Your task to perform on an android device: stop showing notifications on the lock screen Image 0: 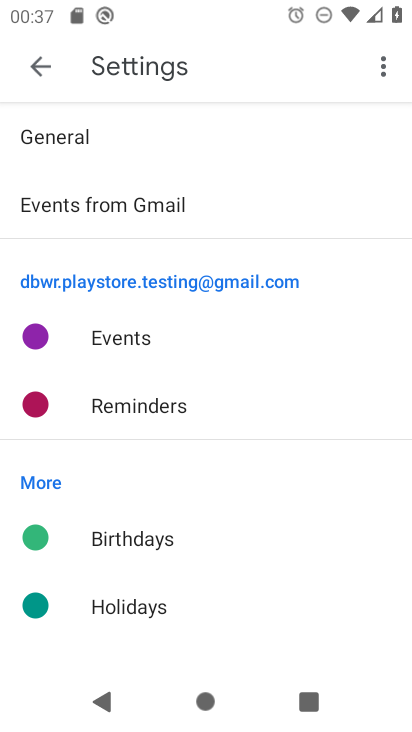
Step 0: press home button
Your task to perform on an android device: stop showing notifications on the lock screen Image 1: 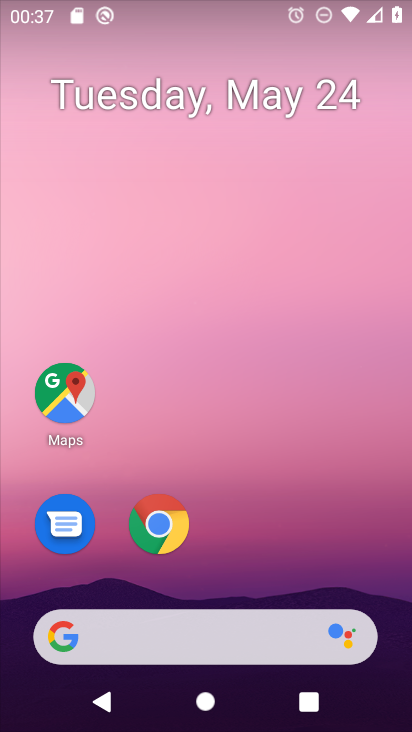
Step 1: drag from (248, 551) to (255, 143)
Your task to perform on an android device: stop showing notifications on the lock screen Image 2: 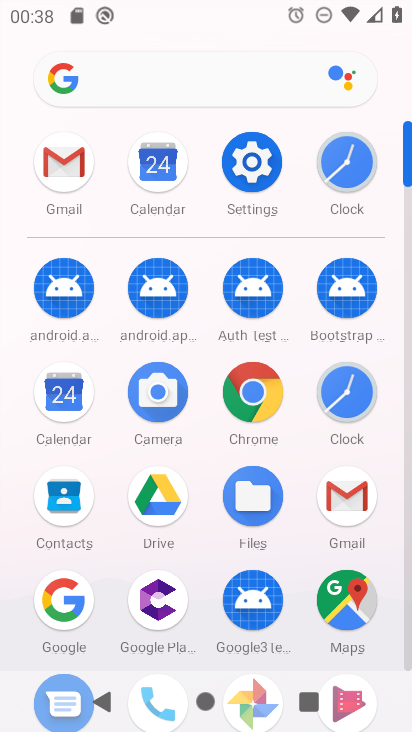
Step 2: click (259, 180)
Your task to perform on an android device: stop showing notifications on the lock screen Image 3: 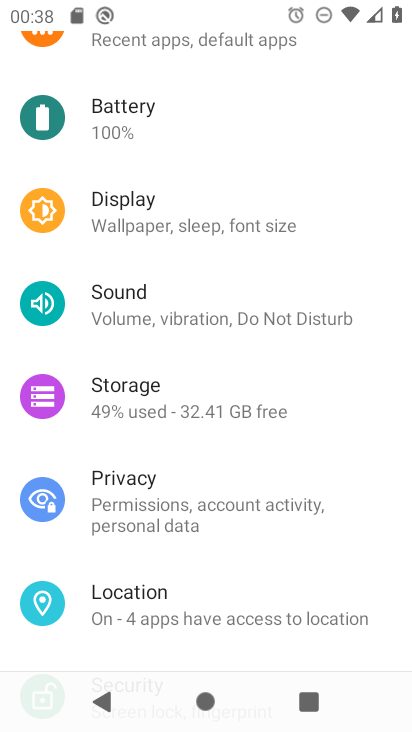
Step 3: drag from (255, 186) to (248, 490)
Your task to perform on an android device: stop showing notifications on the lock screen Image 4: 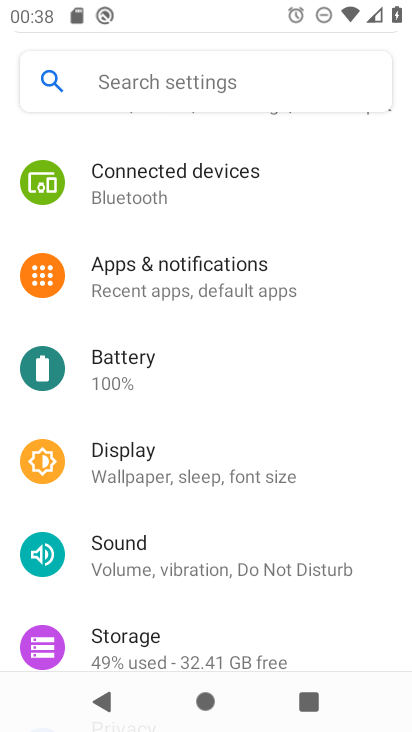
Step 4: drag from (220, 228) to (221, 476)
Your task to perform on an android device: stop showing notifications on the lock screen Image 5: 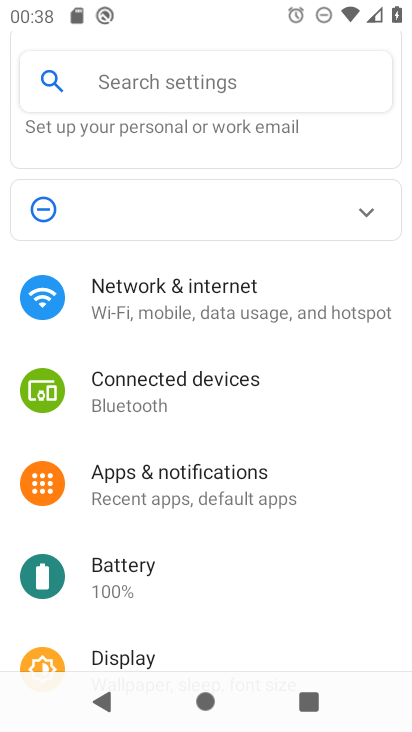
Step 5: drag from (213, 562) to (249, 334)
Your task to perform on an android device: stop showing notifications on the lock screen Image 6: 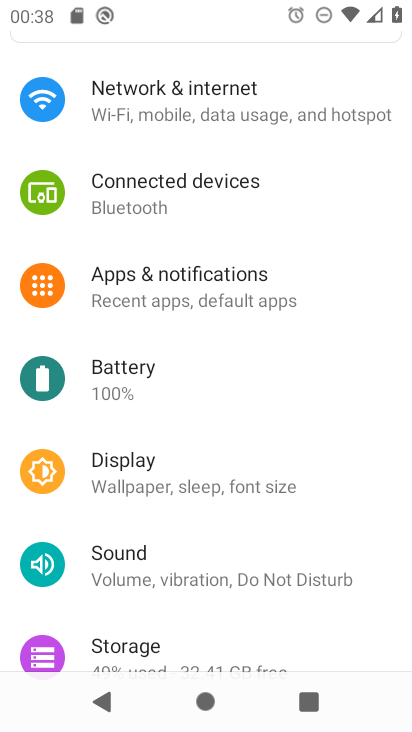
Step 6: drag from (193, 517) to (209, 448)
Your task to perform on an android device: stop showing notifications on the lock screen Image 7: 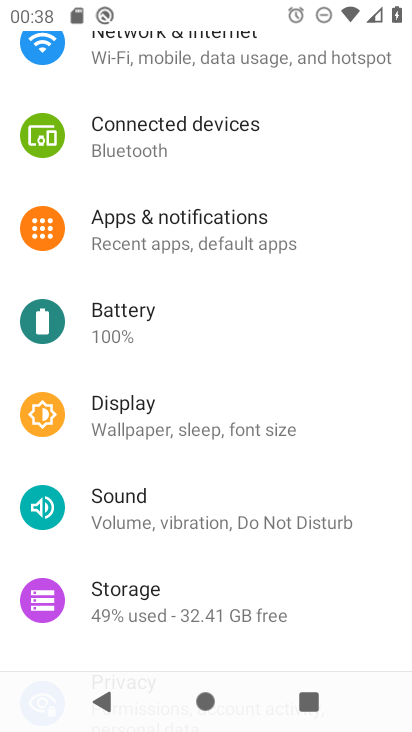
Step 7: click (233, 244)
Your task to perform on an android device: stop showing notifications on the lock screen Image 8: 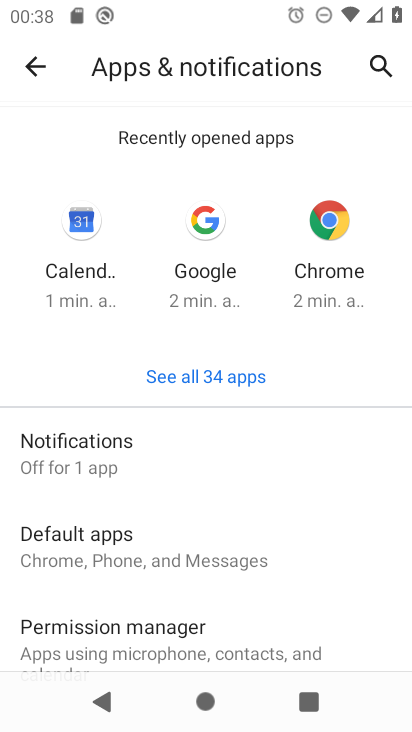
Step 8: click (146, 469)
Your task to perform on an android device: stop showing notifications on the lock screen Image 9: 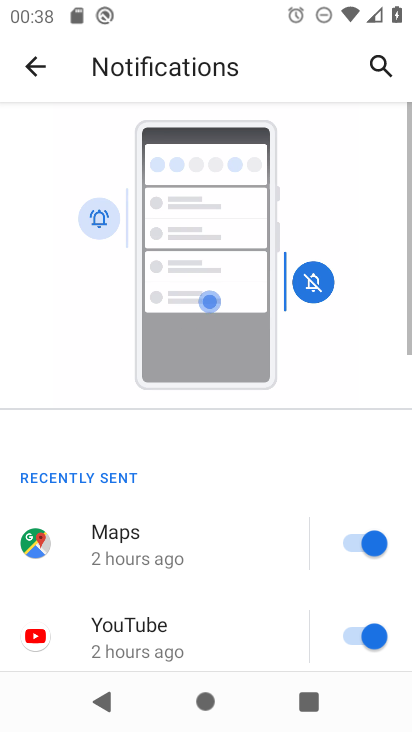
Step 9: drag from (241, 588) to (242, 214)
Your task to perform on an android device: stop showing notifications on the lock screen Image 10: 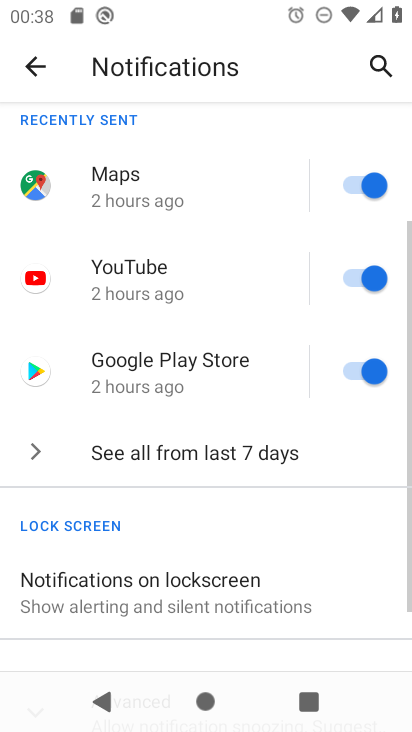
Step 10: drag from (246, 631) to (271, 454)
Your task to perform on an android device: stop showing notifications on the lock screen Image 11: 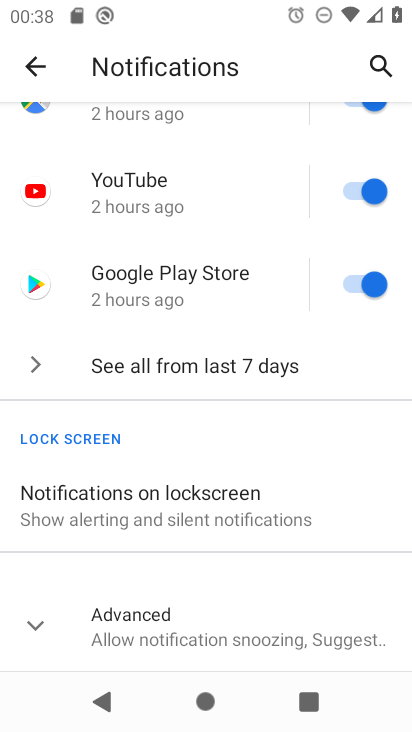
Step 11: click (242, 477)
Your task to perform on an android device: stop showing notifications on the lock screen Image 12: 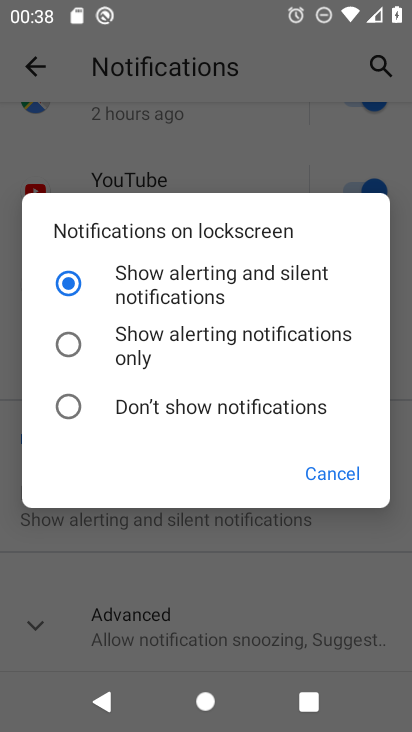
Step 12: click (141, 409)
Your task to perform on an android device: stop showing notifications on the lock screen Image 13: 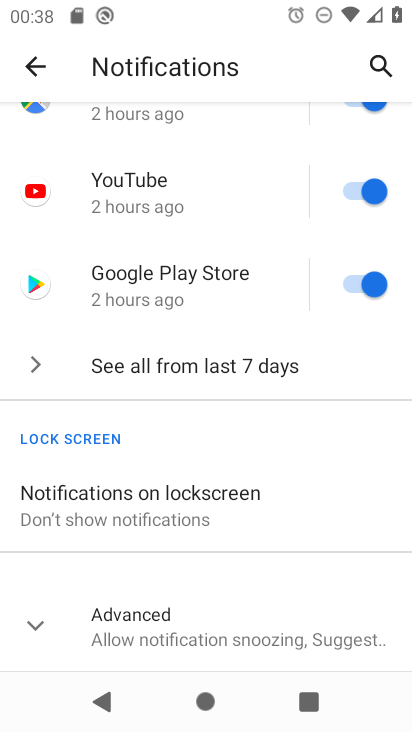
Step 13: task complete